Your task to perform on an android device: change the clock display to show seconds Image 0: 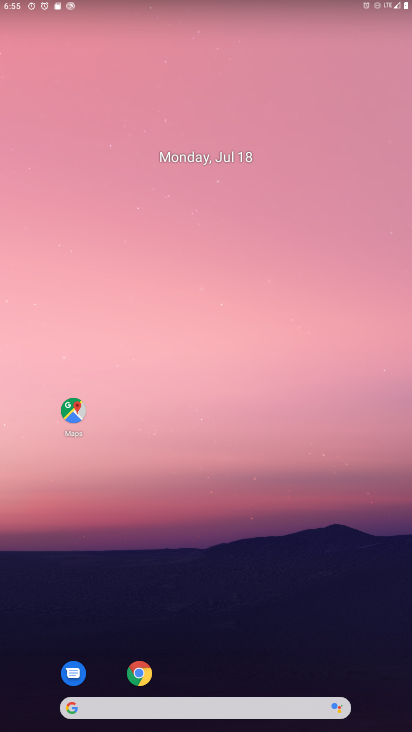
Step 0: drag from (259, 542) to (251, 232)
Your task to perform on an android device: change the clock display to show seconds Image 1: 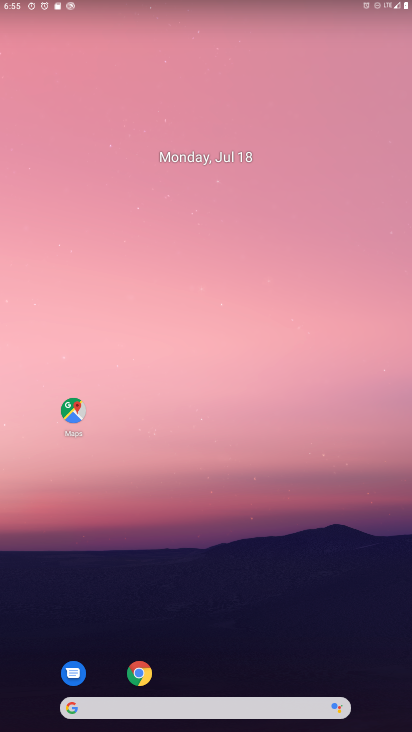
Step 1: drag from (240, 527) to (246, 270)
Your task to perform on an android device: change the clock display to show seconds Image 2: 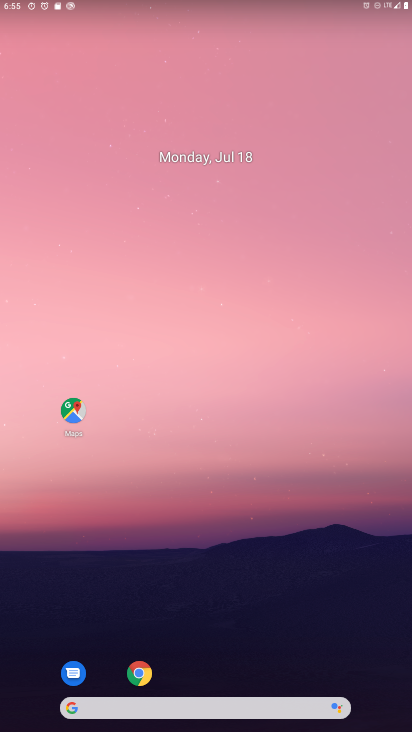
Step 2: drag from (299, 579) to (278, 158)
Your task to perform on an android device: change the clock display to show seconds Image 3: 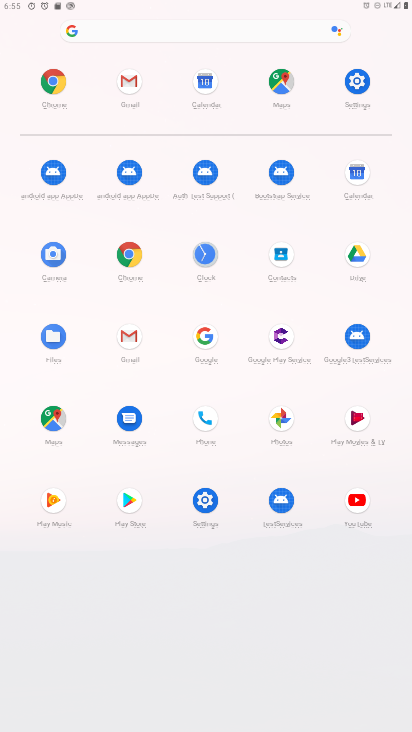
Step 3: click (206, 259)
Your task to perform on an android device: change the clock display to show seconds Image 4: 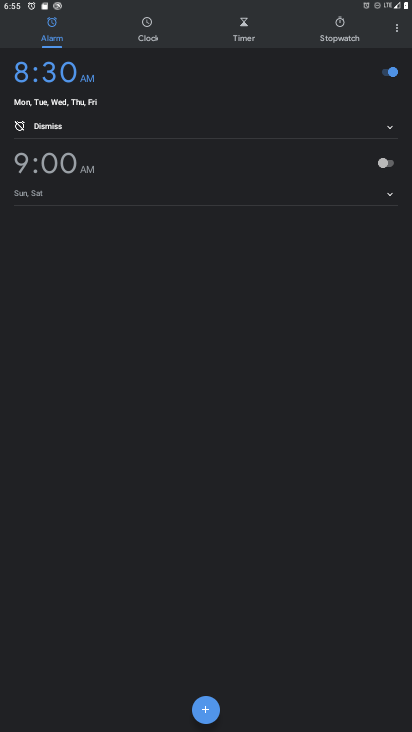
Step 4: click (396, 25)
Your task to perform on an android device: change the clock display to show seconds Image 5: 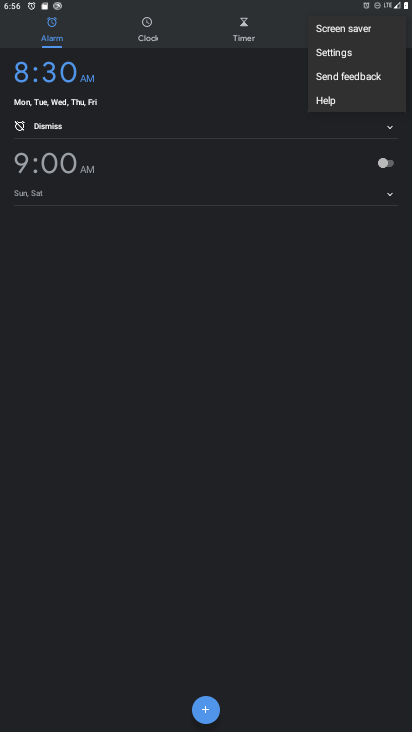
Step 5: click (340, 54)
Your task to perform on an android device: change the clock display to show seconds Image 6: 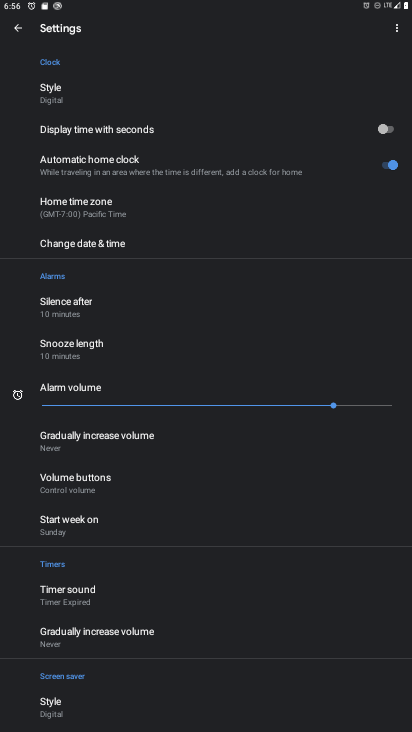
Step 6: drag from (178, 600) to (189, 301)
Your task to perform on an android device: change the clock display to show seconds Image 7: 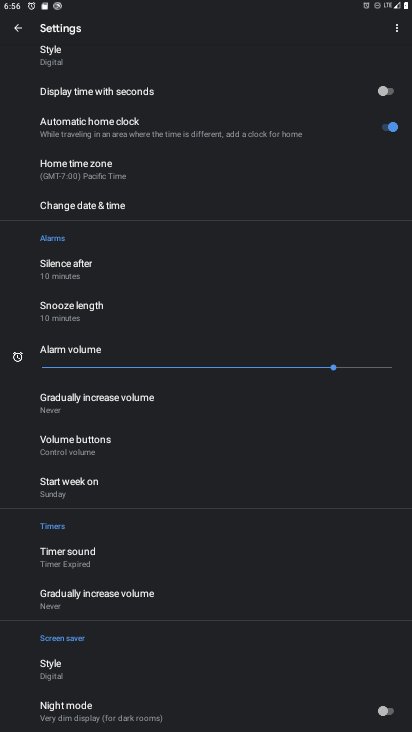
Step 7: drag from (171, 659) to (208, 420)
Your task to perform on an android device: change the clock display to show seconds Image 8: 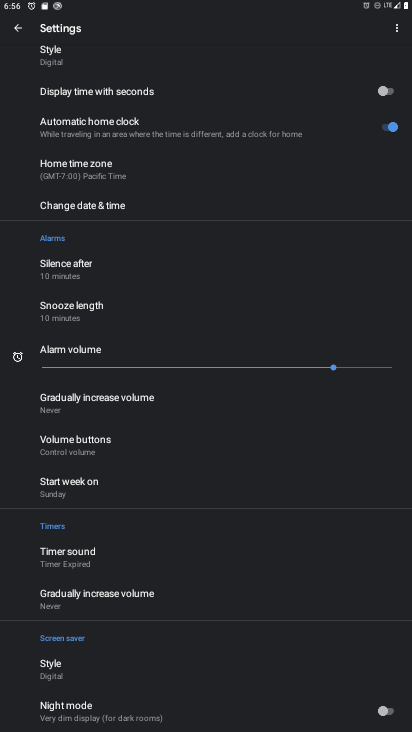
Step 8: drag from (196, 616) to (241, 409)
Your task to perform on an android device: change the clock display to show seconds Image 9: 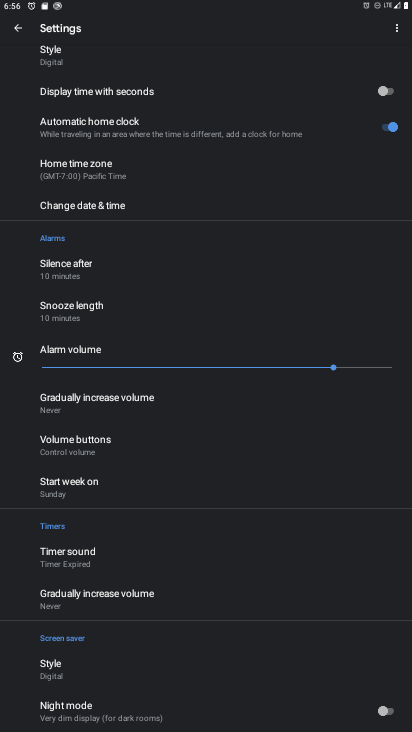
Step 9: drag from (171, 182) to (198, 294)
Your task to perform on an android device: change the clock display to show seconds Image 10: 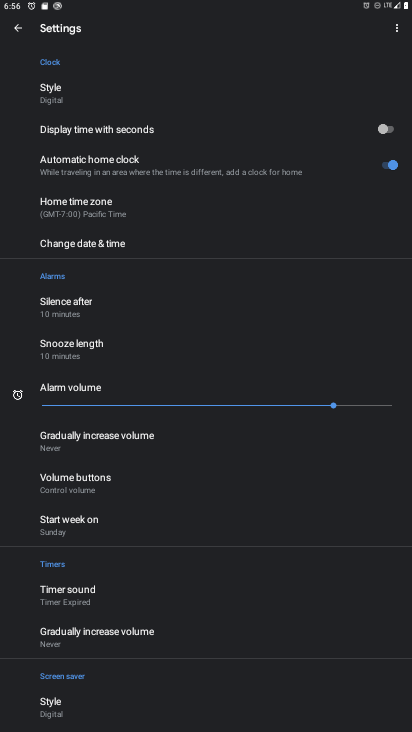
Step 10: click (384, 128)
Your task to perform on an android device: change the clock display to show seconds Image 11: 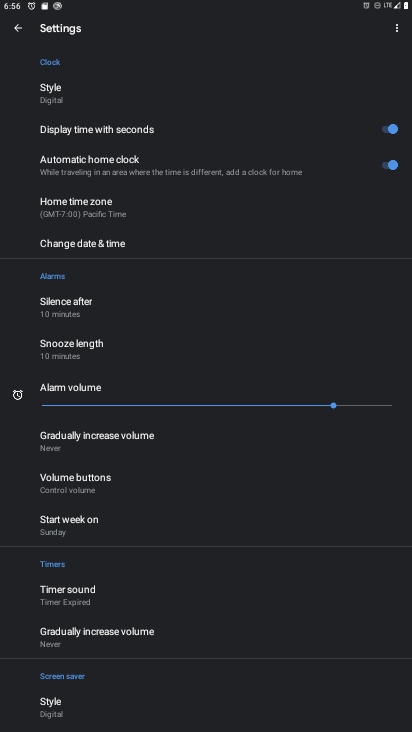
Step 11: task complete